Your task to perform on an android device: turn on data saver in the chrome app Image 0: 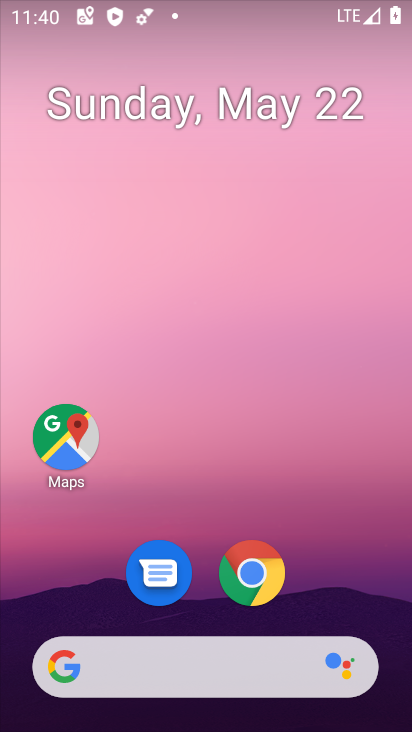
Step 0: click (254, 573)
Your task to perform on an android device: turn on data saver in the chrome app Image 1: 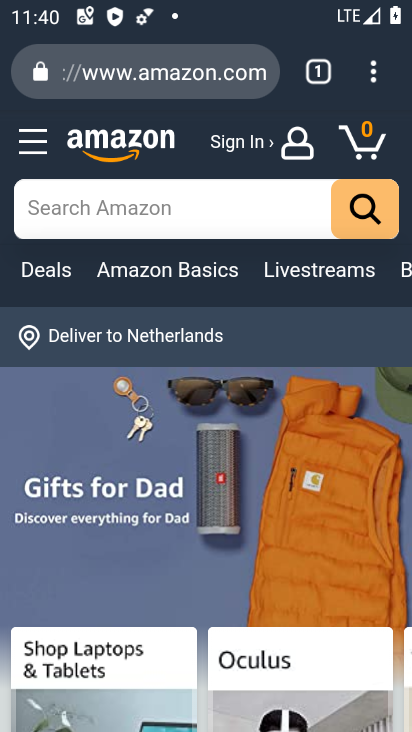
Step 1: click (373, 82)
Your task to perform on an android device: turn on data saver in the chrome app Image 2: 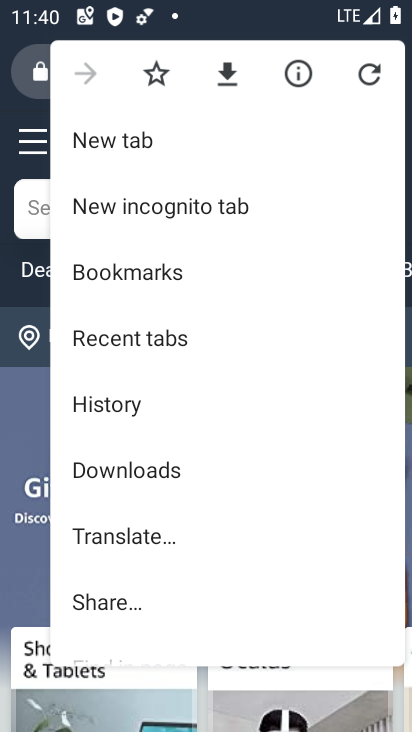
Step 2: drag from (149, 567) to (181, 275)
Your task to perform on an android device: turn on data saver in the chrome app Image 3: 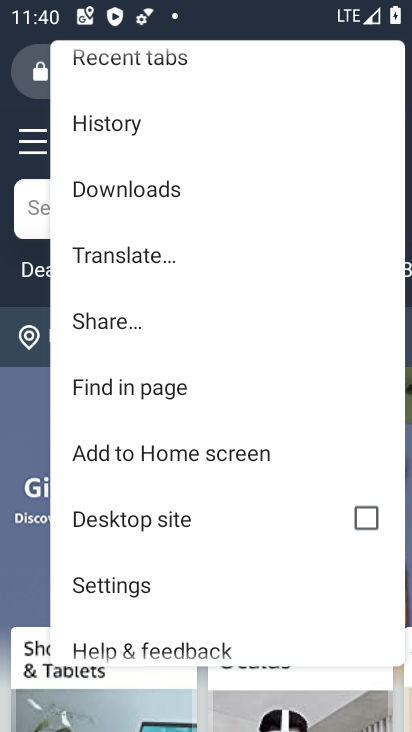
Step 3: click (155, 571)
Your task to perform on an android device: turn on data saver in the chrome app Image 4: 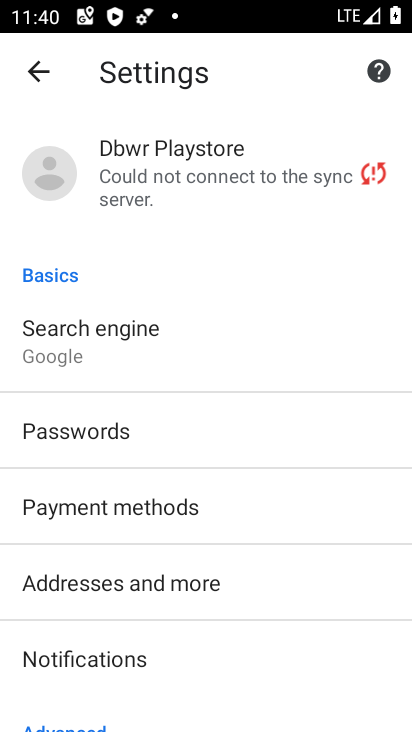
Step 4: drag from (163, 623) to (250, 240)
Your task to perform on an android device: turn on data saver in the chrome app Image 5: 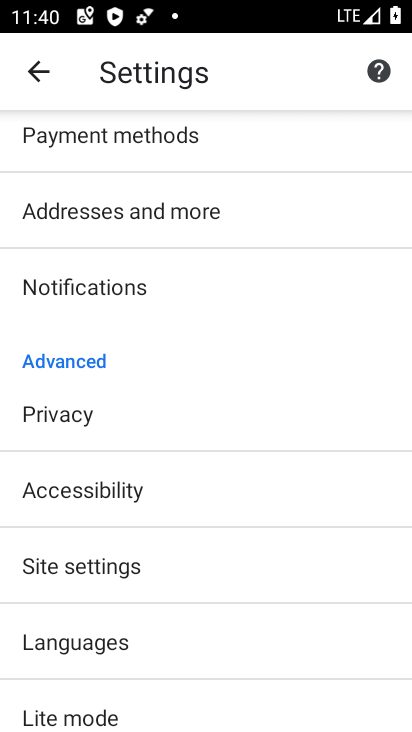
Step 5: drag from (186, 672) to (227, 392)
Your task to perform on an android device: turn on data saver in the chrome app Image 6: 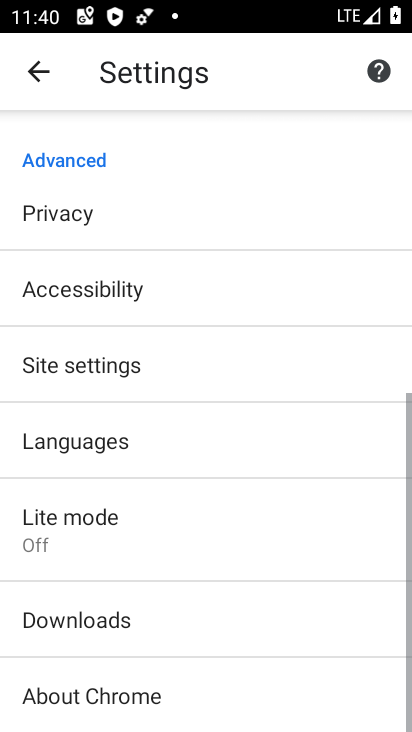
Step 6: click (130, 547)
Your task to perform on an android device: turn on data saver in the chrome app Image 7: 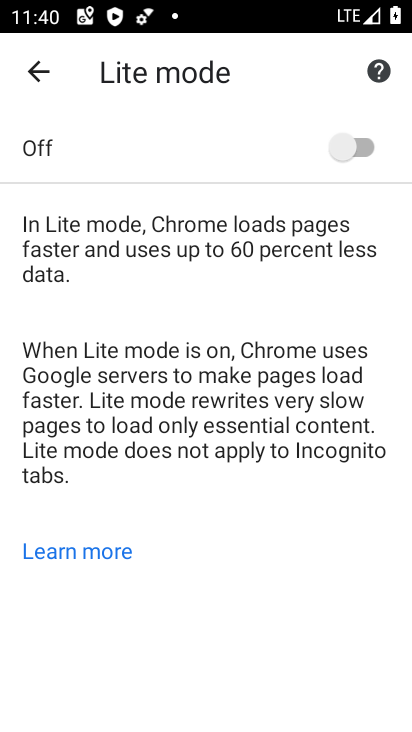
Step 7: click (351, 140)
Your task to perform on an android device: turn on data saver in the chrome app Image 8: 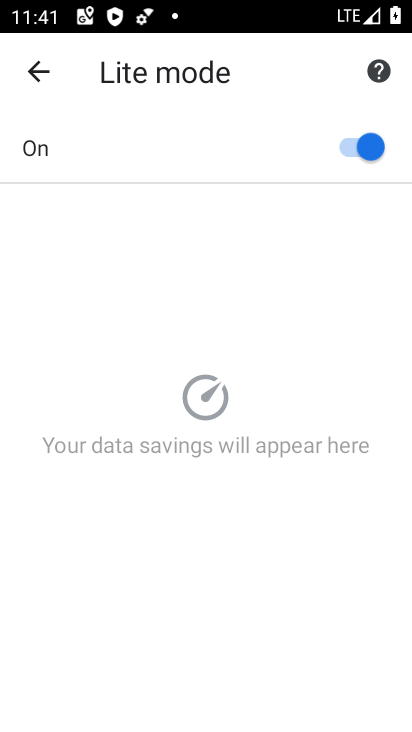
Step 8: task complete